Your task to perform on an android device: open sync settings in chrome Image 0: 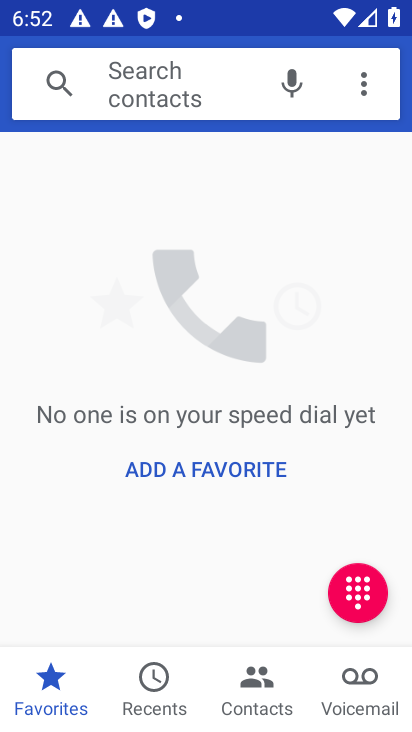
Step 0: press home button
Your task to perform on an android device: open sync settings in chrome Image 1: 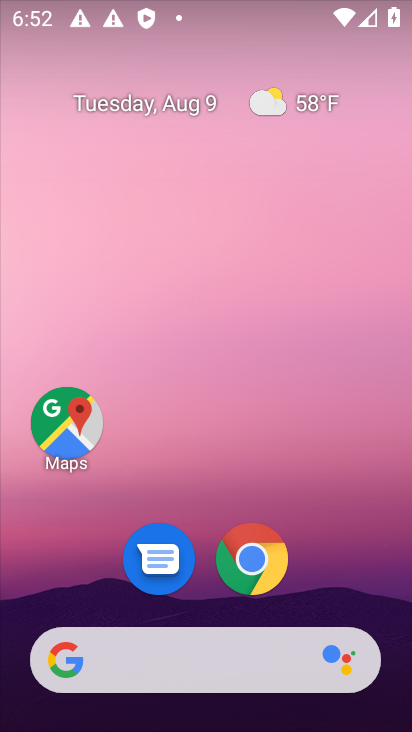
Step 1: click (246, 555)
Your task to perform on an android device: open sync settings in chrome Image 2: 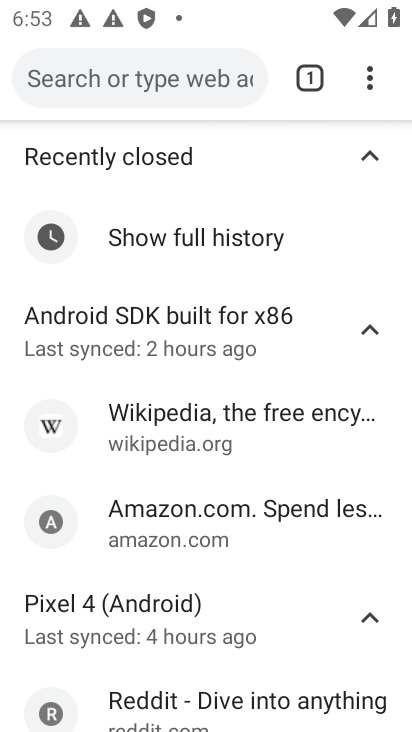
Step 2: click (369, 77)
Your task to perform on an android device: open sync settings in chrome Image 3: 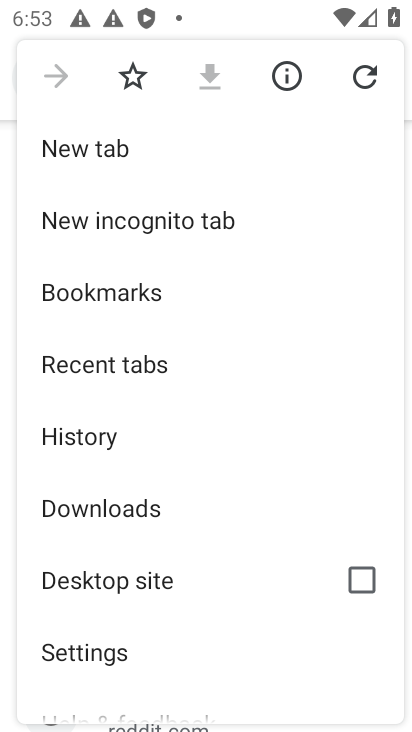
Step 3: click (82, 658)
Your task to perform on an android device: open sync settings in chrome Image 4: 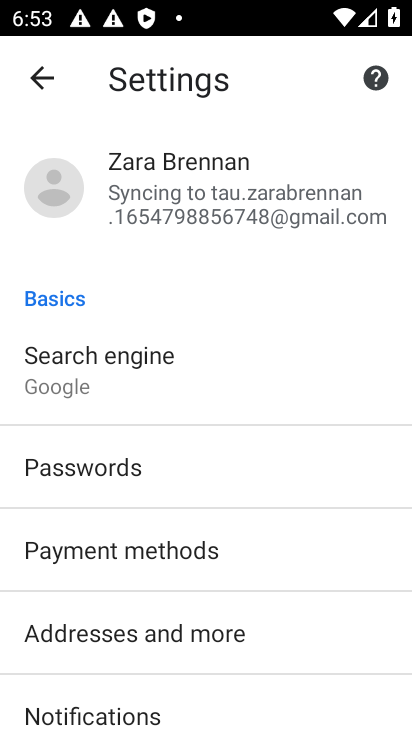
Step 4: click (180, 191)
Your task to perform on an android device: open sync settings in chrome Image 5: 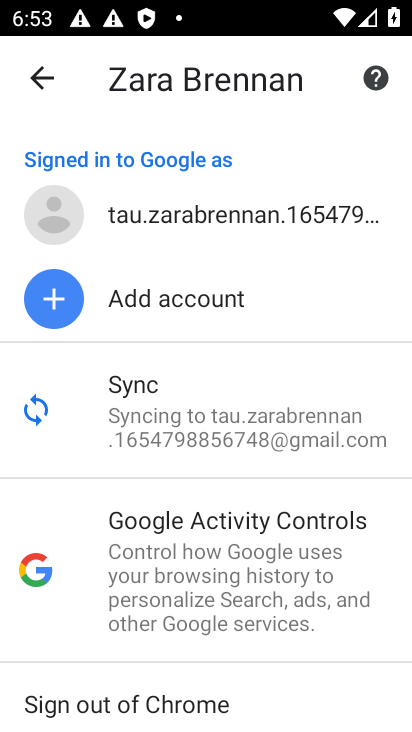
Step 5: click (177, 416)
Your task to perform on an android device: open sync settings in chrome Image 6: 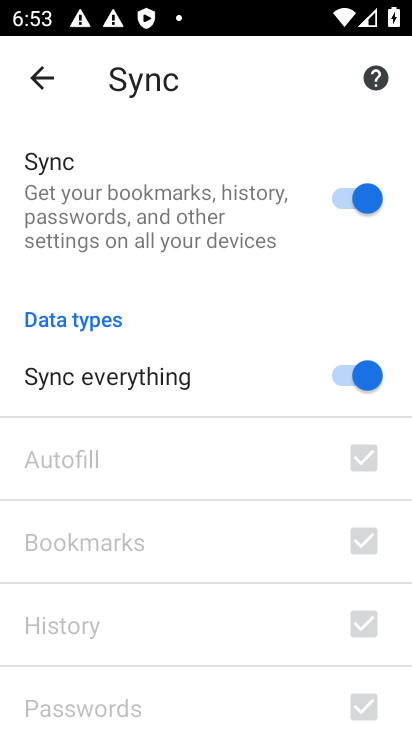
Step 6: task complete